Your task to perform on an android device: turn off notifications settings in the gmail app Image 0: 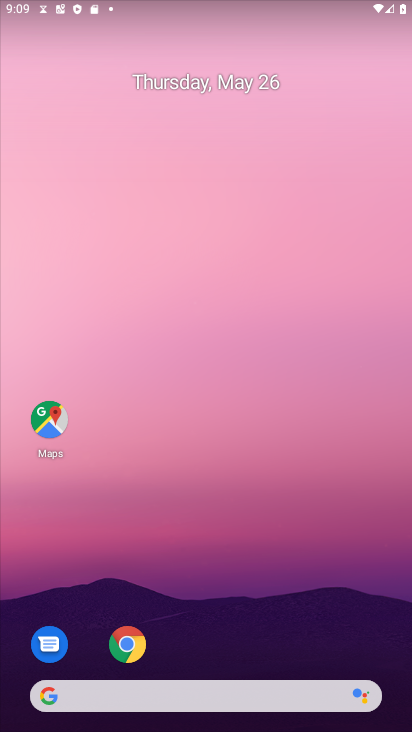
Step 0: drag from (181, 644) to (219, 111)
Your task to perform on an android device: turn off notifications settings in the gmail app Image 1: 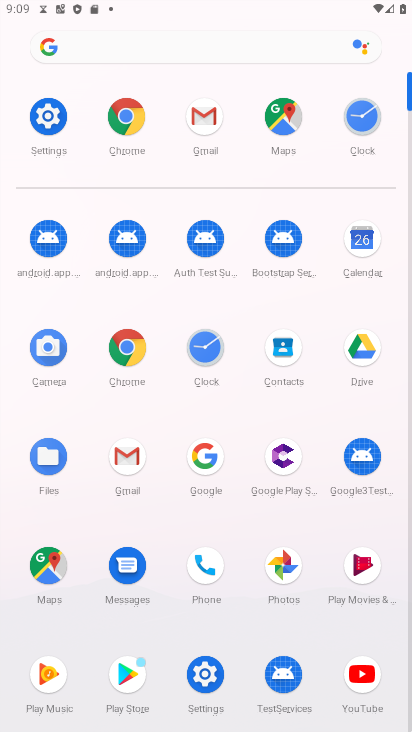
Step 1: click (202, 114)
Your task to perform on an android device: turn off notifications settings in the gmail app Image 2: 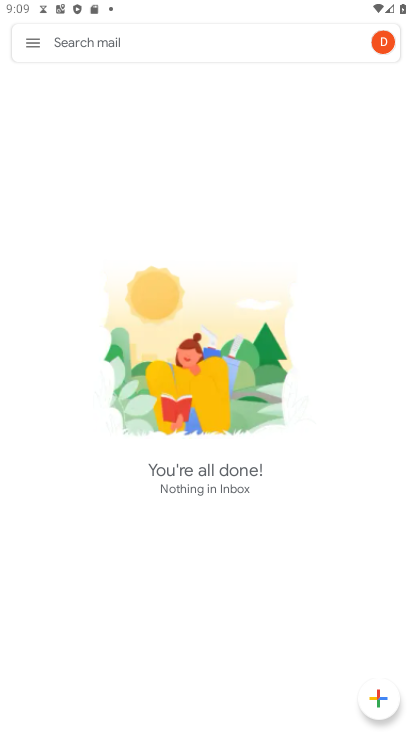
Step 2: press back button
Your task to perform on an android device: turn off notifications settings in the gmail app Image 3: 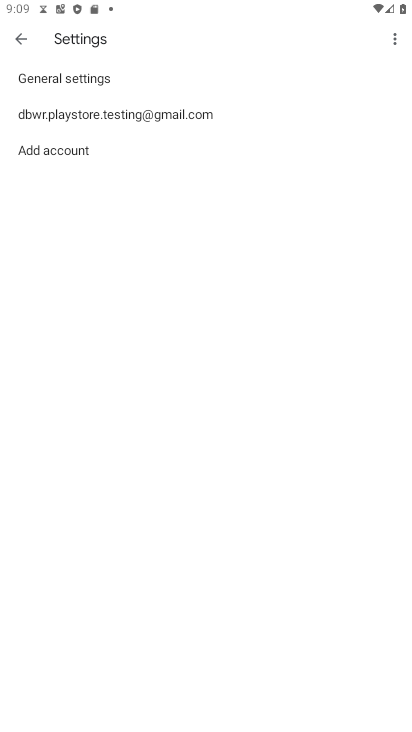
Step 3: press back button
Your task to perform on an android device: turn off notifications settings in the gmail app Image 4: 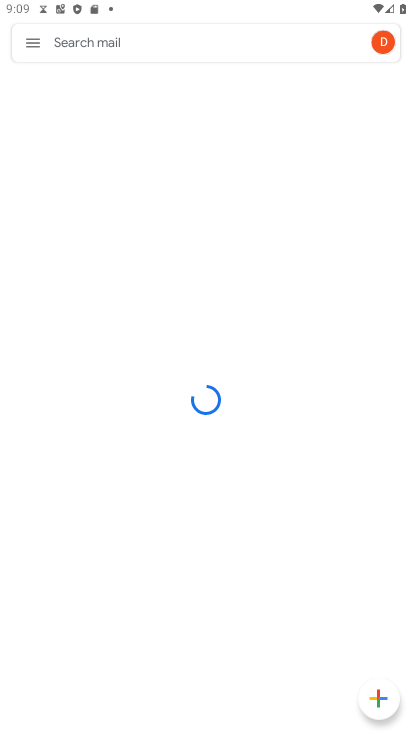
Step 4: press home button
Your task to perform on an android device: turn off notifications settings in the gmail app Image 5: 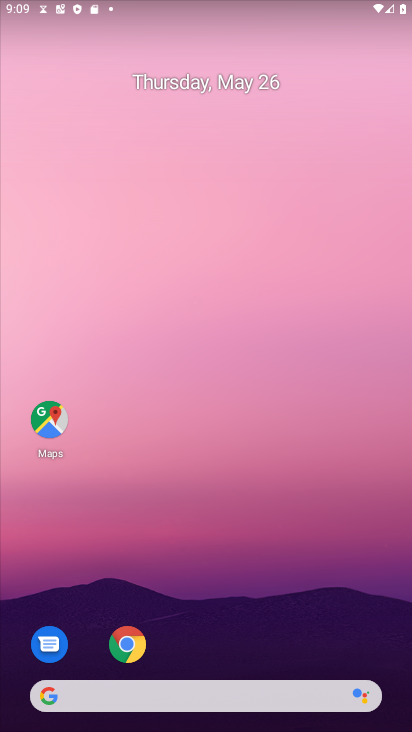
Step 5: drag from (244, 597) to (310, 135)
Your task to perform on an android device: turn off notifications settings in the gmail app Image 6: 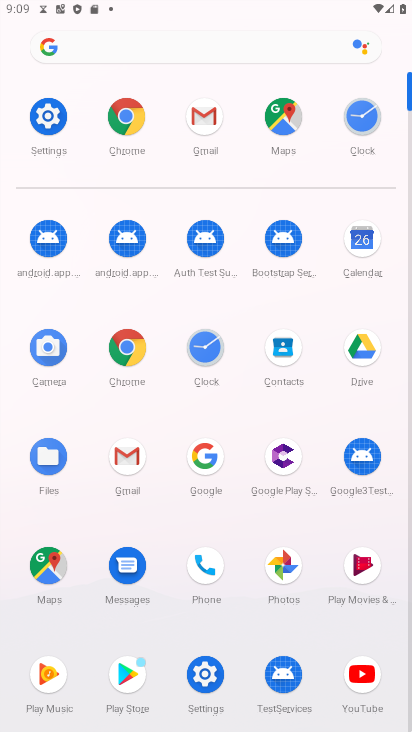
Step 6: click (199, 113)
Your task to perform on an android device: turn off notifications settings in the gmail app Image 7: 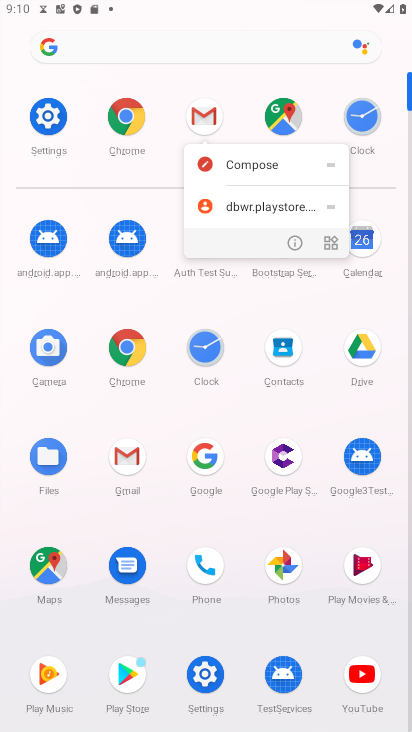
Step 7: click (291, 238)
Your task to perform on an android device: turn off notifications settings in the gmail app Image 8: 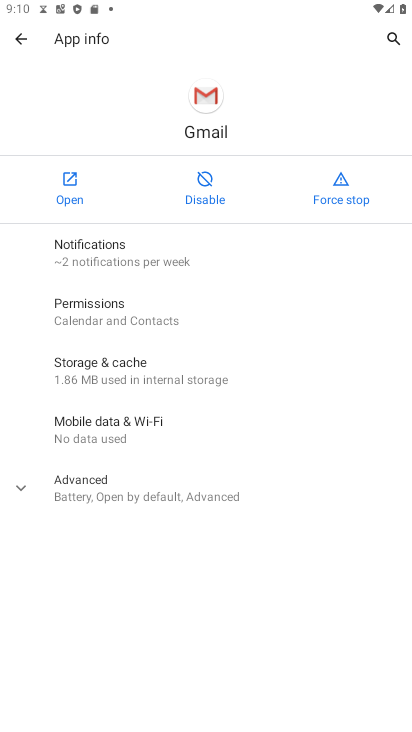
Step 8: click (162, 255)
Your task to perform on an android device: turn off notifications settings in the gmail app Image 9: 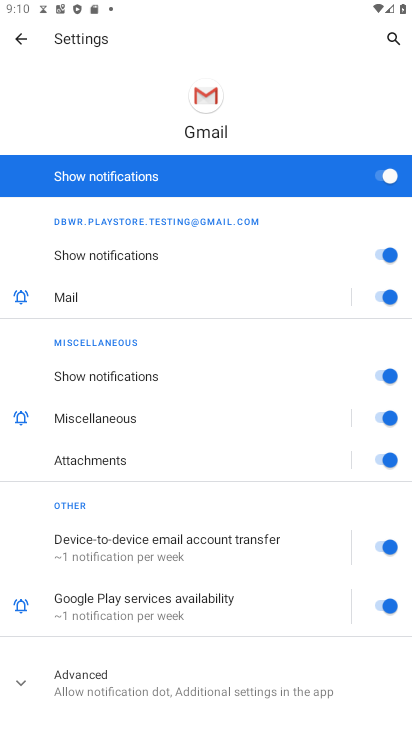
Step 9: click (389, 175)
Your task to perform on an android device: turn off notifications settings in the gmail app Image 10: 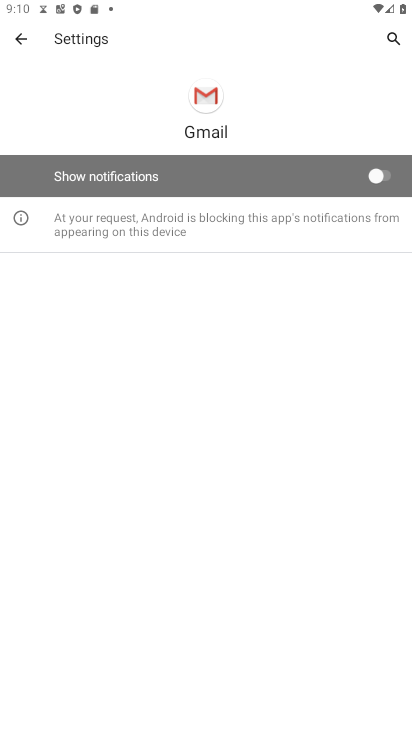
Step 10: task complete